Your task to perform on an android device: Is it going to rain today? Image 0: 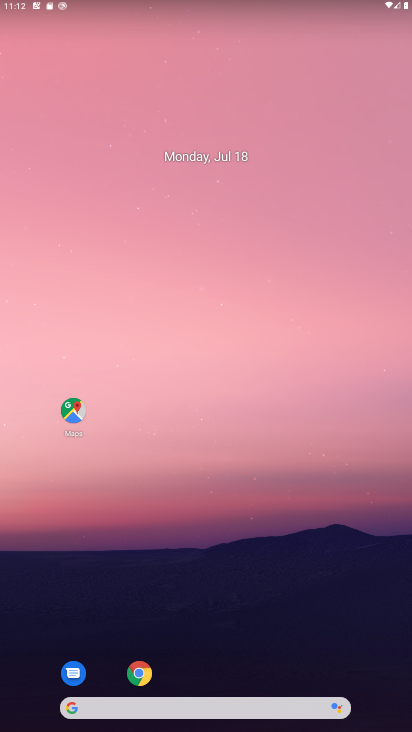
Step 0: drag from (207, 643) to (213, 123)
Your task to perform on an android device: Is it going to rain today? Image 1: 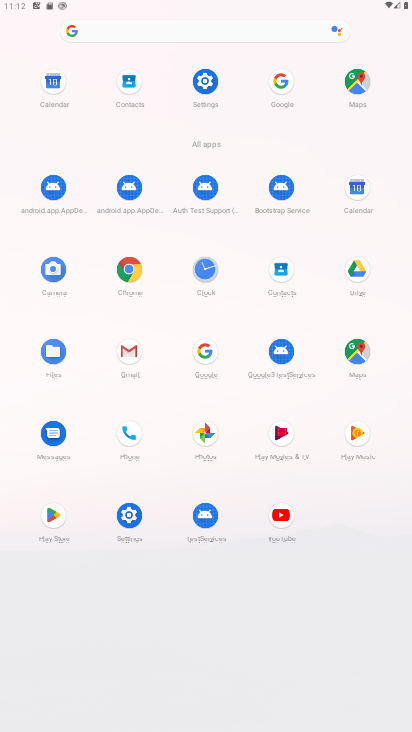
Step 1: click (213, 343)
Your task to perform on an android device: Is it going to rain today? Image 2: 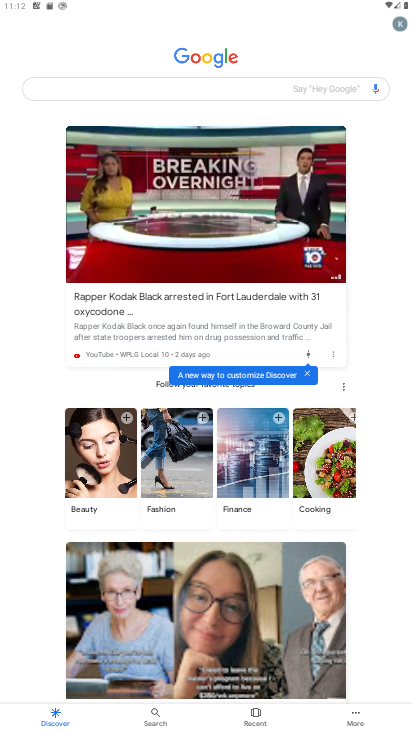
Step 2: click (150, 89)
Your task to perform on an android device: Is it going to rain today? Image 3: 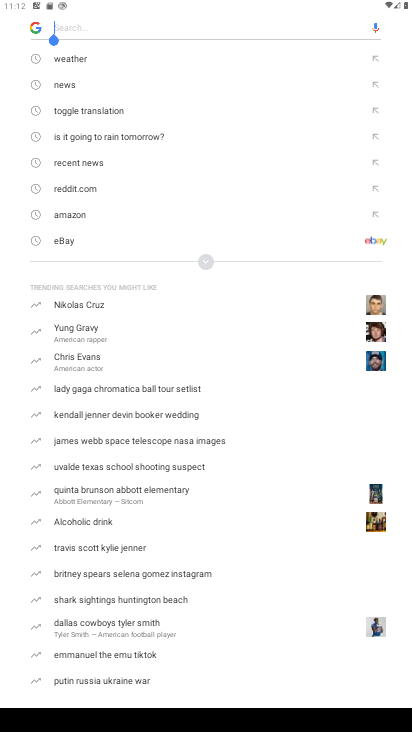
Step 3: click (70, 55)
Your task to perform on an android device: Is it going to rain today? Image 4: 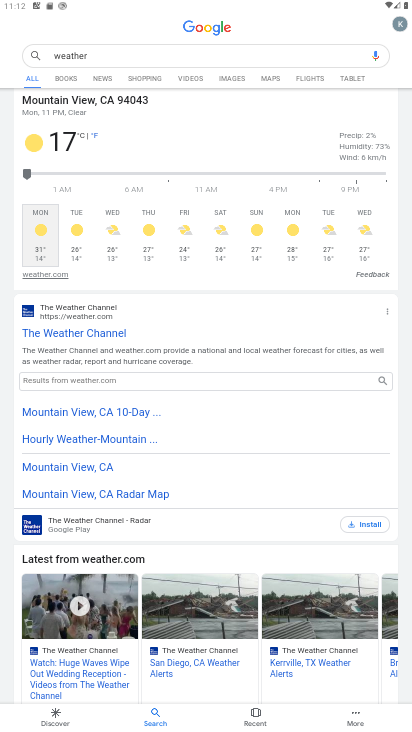
Step 4: task complete